Your task to perform on an android device: Open Google Chrome Image 0: 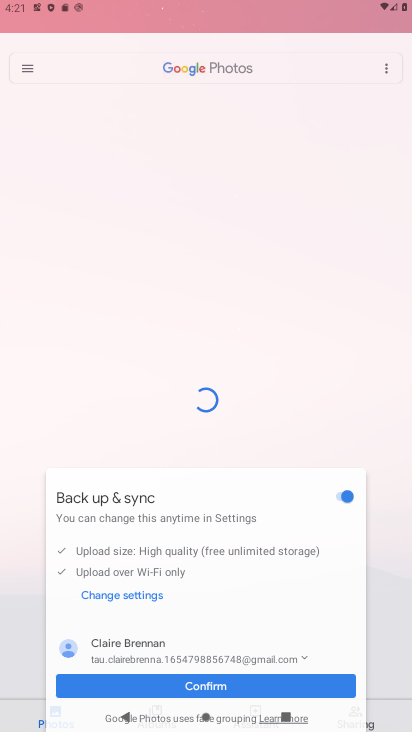
Step 0: press home button
Your task to perform on an android device: Open Google Chrome Image 1: 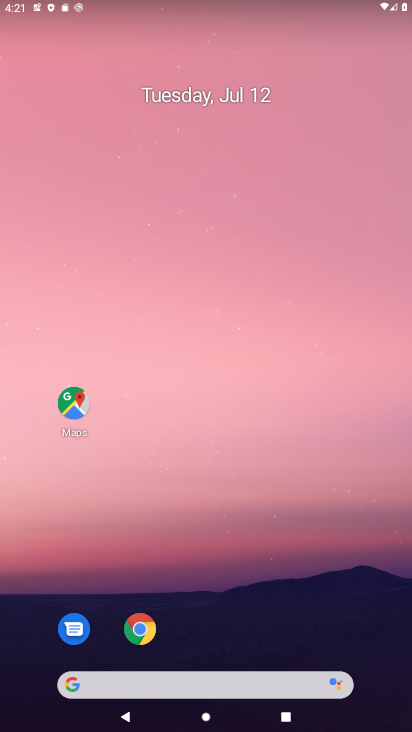
Step 1: drag from (282, 616) to (255, 276)
Your task to perform on an android device: Open Google Chrome Image 2: 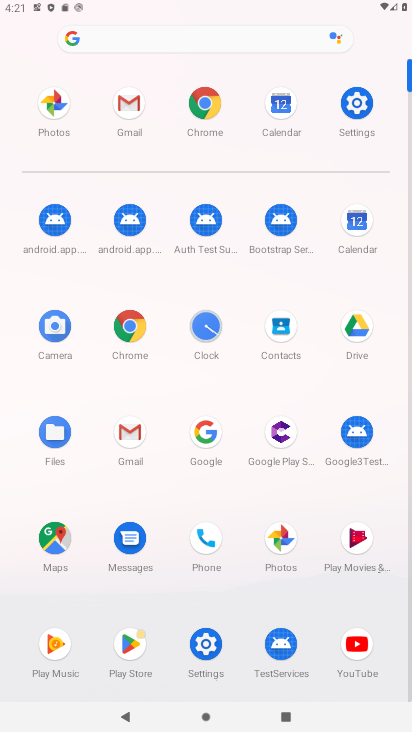
Step 2: click (204, 104)
Your task to perform on an android device: Open Google Chrome Image 3: 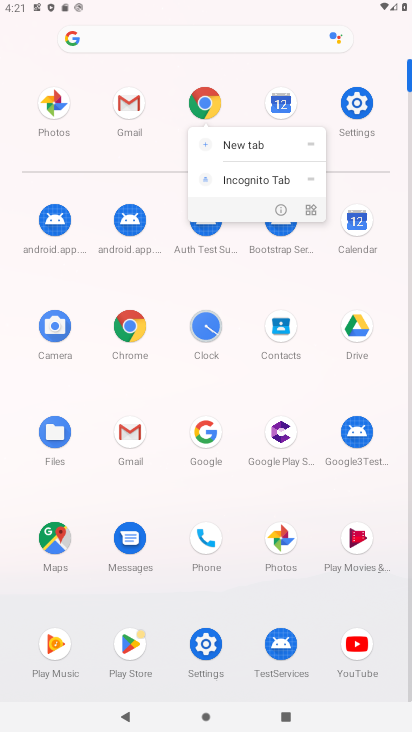
Step 3: click (204, 104)
Your task to perform on an android device: Open Google Chrome Image 4: 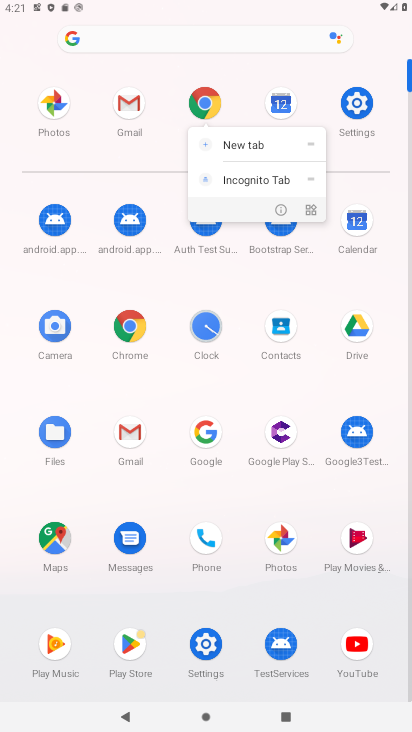
Step 4: click (204, 104)
Your task to perform on an android device: Open Google Chrome Image 5: 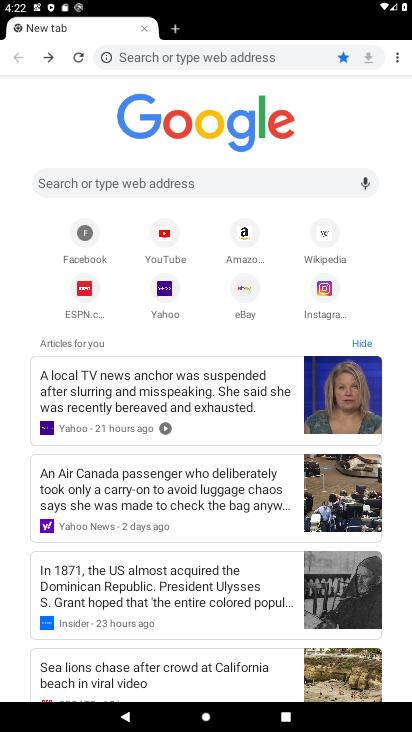
Step 5: task complete